Your task to perform on an android device: Open settings on Google Maps Image 0: 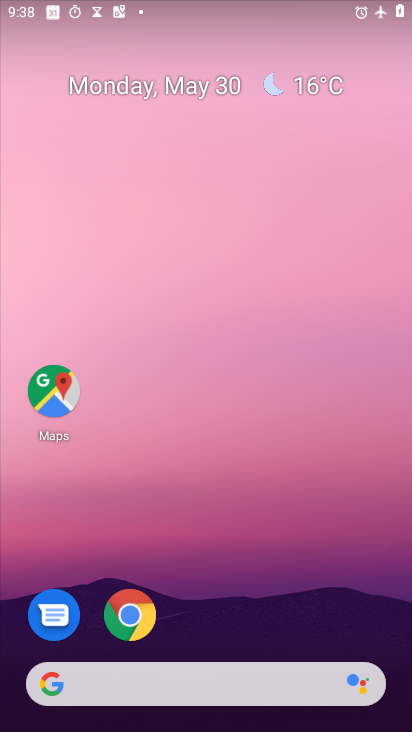
Step 0: drag from (357, 599) to (319, 107)
Your task to perform on an android device: Open settings on Google Maps Image 1: 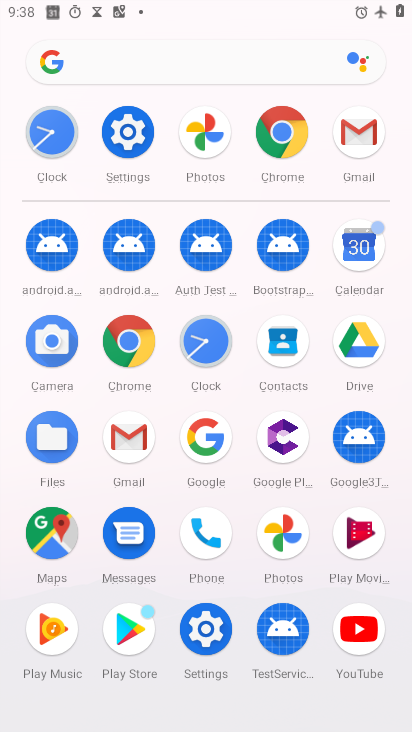
Step 1: click (59, 521)
Your task to perform on an android device: Open settings on Google Maps Image 2: 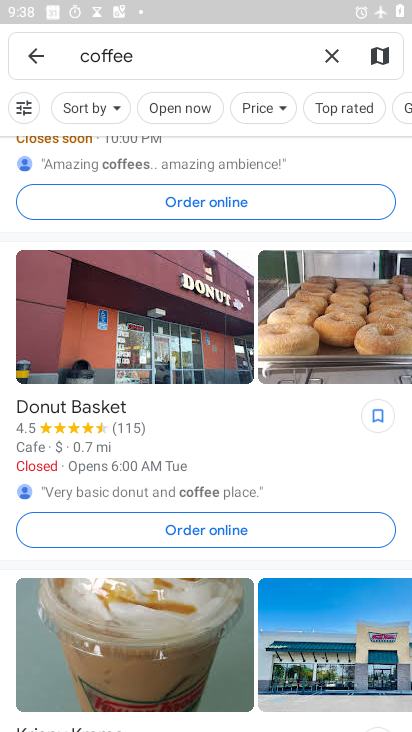
Step 2: click (28, 61)
Your task to perform on an android device: Open settings on Google Maps Image 3: 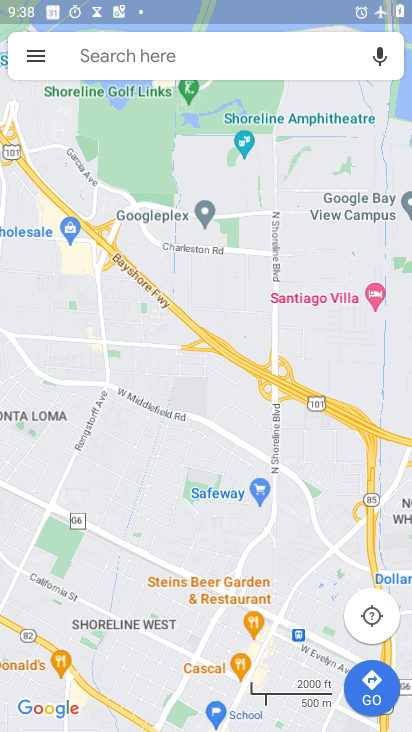
Step 3: click (28, 61)
Your task to perform on an android device: Open settings on Google Maps Image 4: 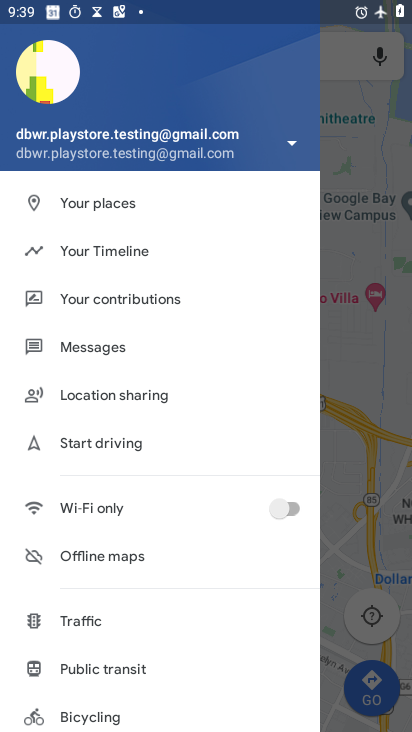
Step 4: drag from (111, 595) to (74, 124)
Your task to perform on an android device: Open settings on Google Maps Image 5: 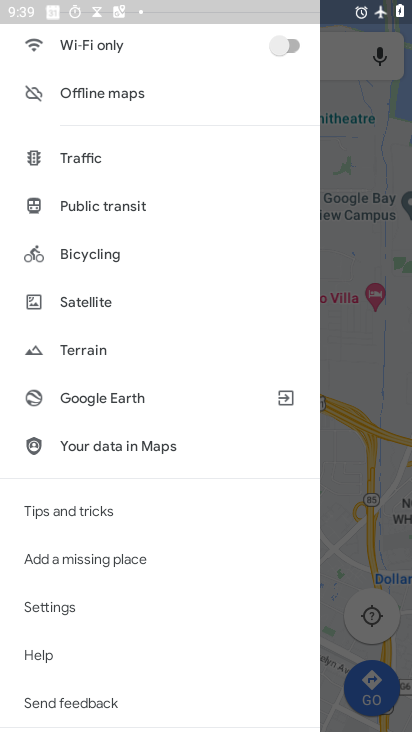
Step 5: drag from (160, 619) to (237, 302)
Your task to perform on an android device: Open settings on Google Maps Image 6: 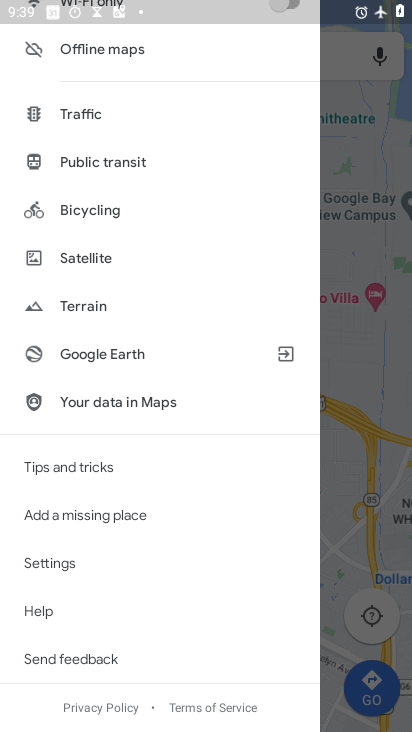
Step 6: click (68, 562)
Your task to perform on an android device: Open settings on Google Maps Image 7: 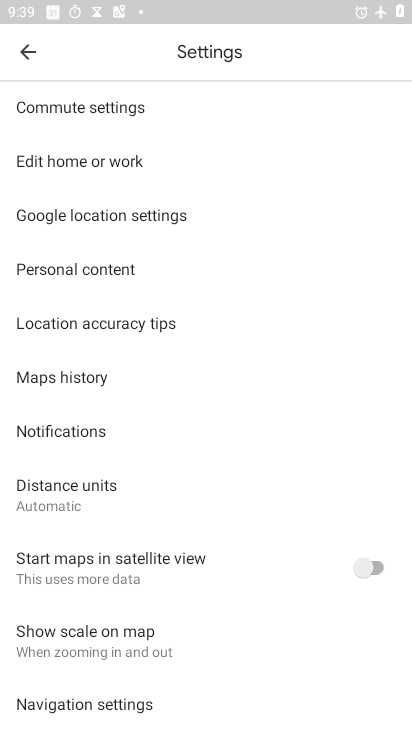
Step 7: task complete